Your task to perform on an android device: turn on data saver in the chrome app Image 0: 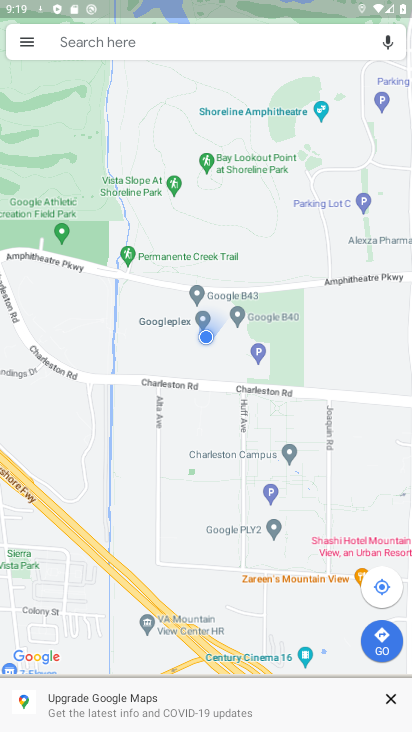
Step 0: press home button
Your task to perform on an android device: turn on data saver in the chrome app Image 1: 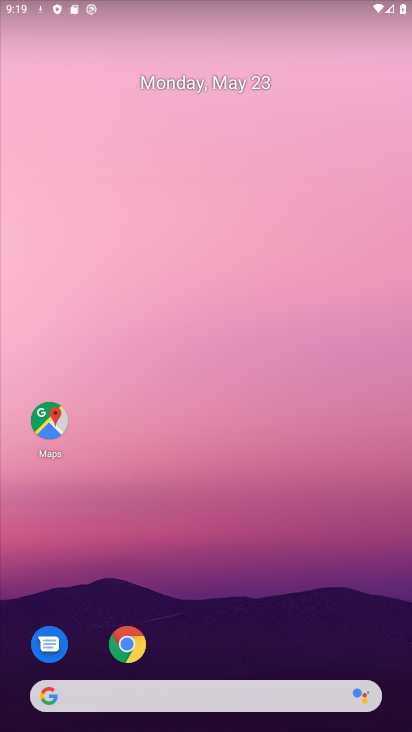
Step 1: drag from (246, 726) to (269, 260)
Your task to perform on an android device: turn on data saver in the chrome app Image 2: 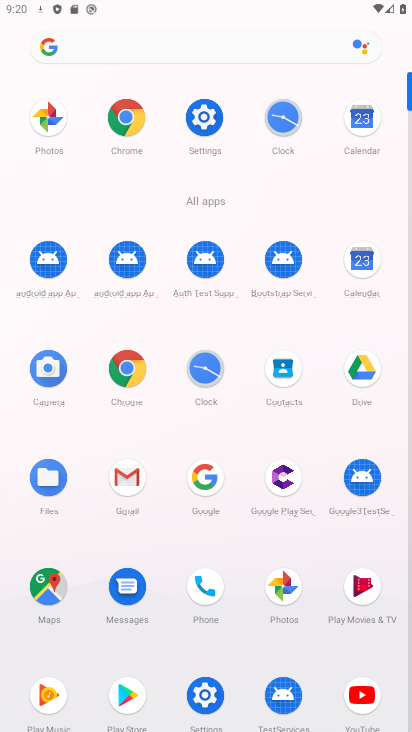
Step 2: click (144, 385)
Your task to perform on an android device: turn on data saver in the chrome app Image 3: 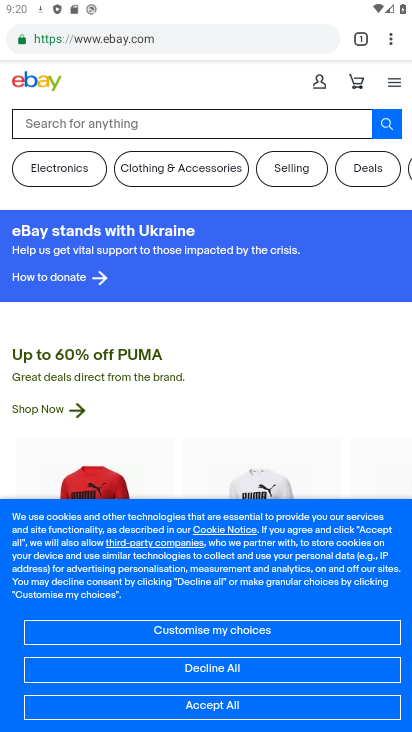
Step 3: click (378, 48)
Your task to perform on an android device: turn on data saver in the chrome app Image 4: 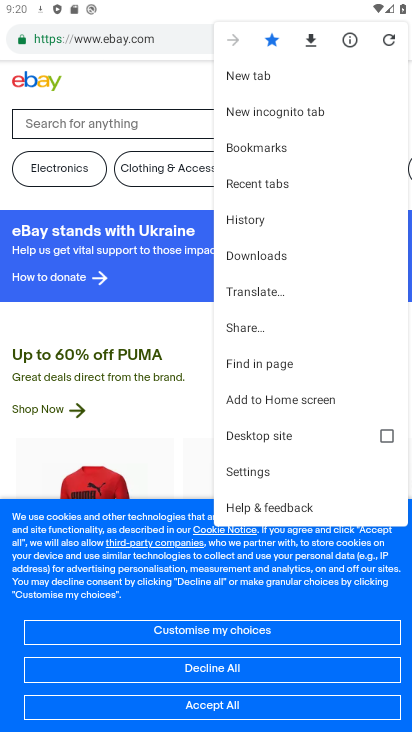
Step 4: click (254, 478)
Your task to perform on an android device: turn on data saver in the chrome app Image 5: 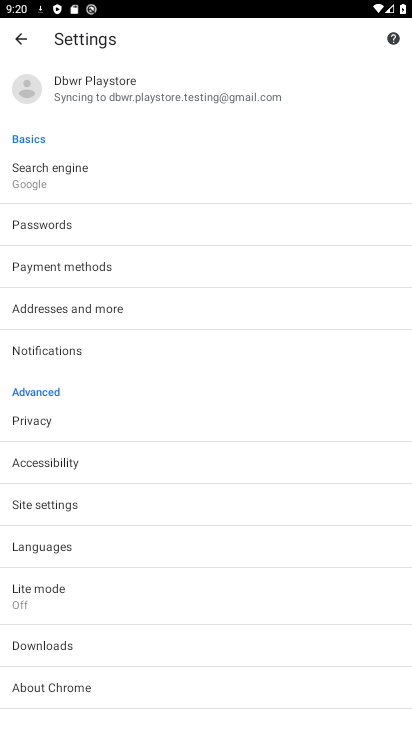
Step 5: click (56, 583)
Your task to perform on an android device: turn on data saver in the chrome app Image 6: 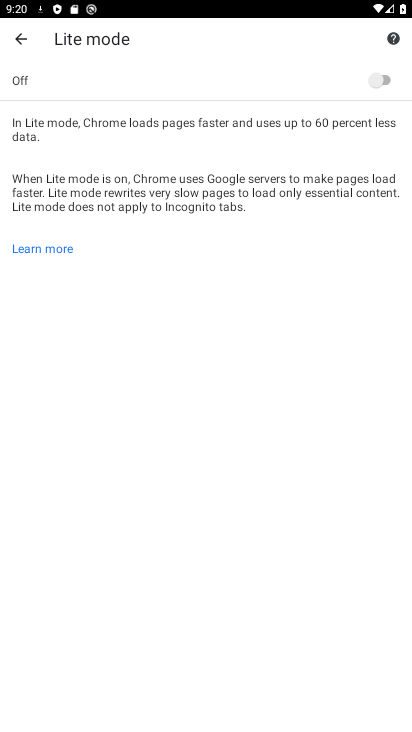
Step 6: click (374, 64)
Your task to perform on an android device: turn on data saver in the chrome app Image 7: 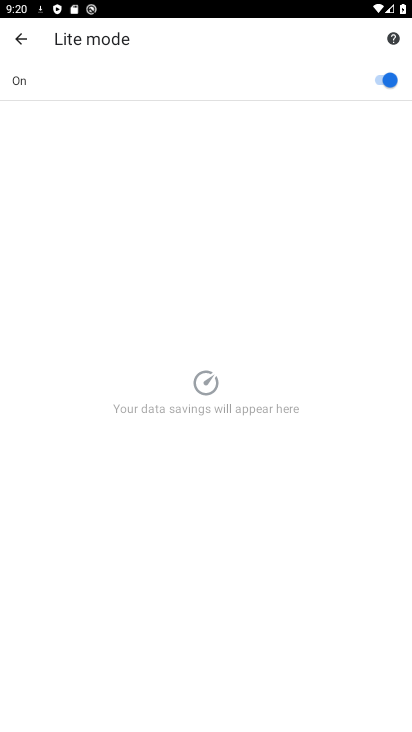
Step 7: task complete